Your task to perform on an android device: Open Chrome and go to the settings page Image 0: 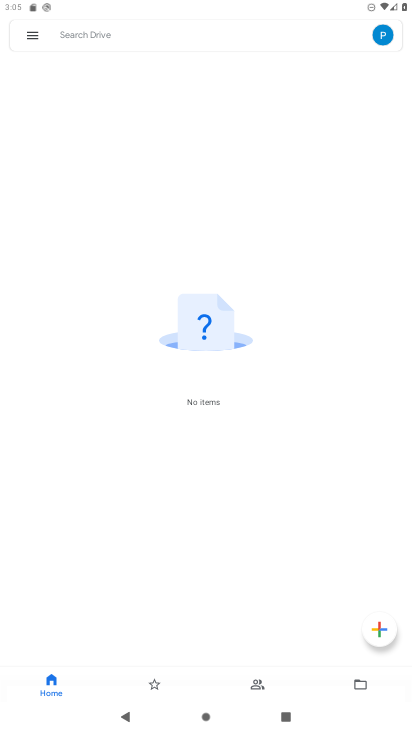
Step 0: press home button
Your task to perform on an android device: Open Chrome and go to the settings page Image 1: 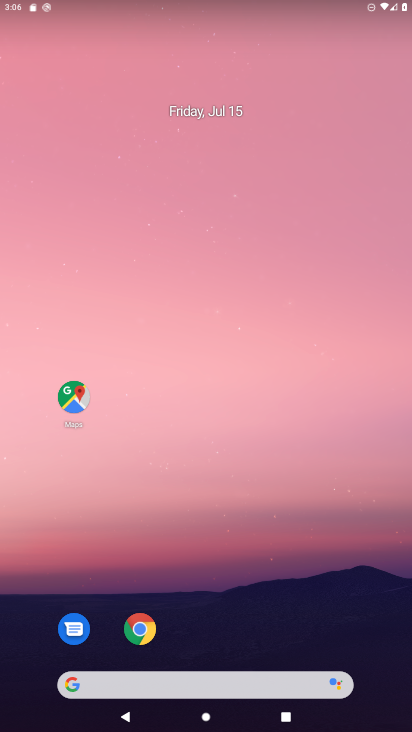
Step 1: drag from (255, 508) to (253, 14)
Your task to perform on an android device: Open Chrome and go to the settings page Image 2: 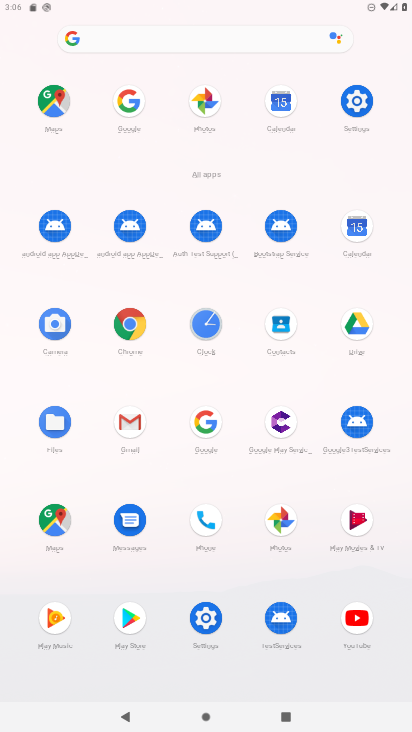
Step 2: click (137, 320)
Your task to perform on an android device: Open Chrome and go to the settings page Image 3: 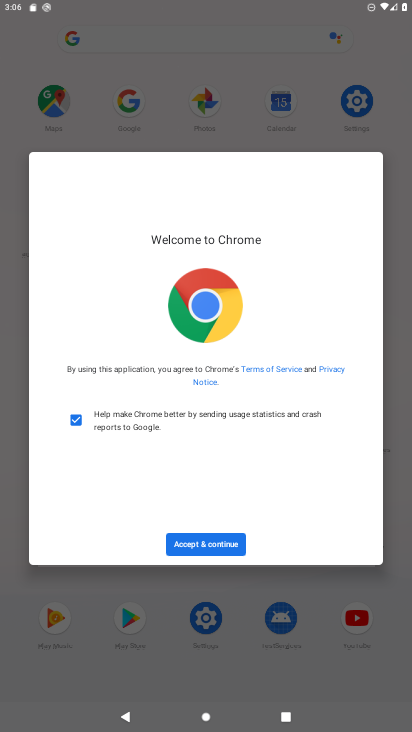
Step 3: click (223, 543)
Your task to perform on an android device: Open Chrome and go to the settings page Image 4: 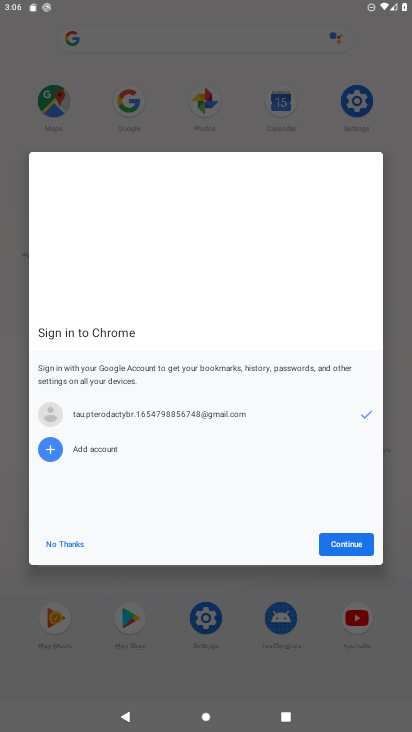
Step 4: click (71, 536)
Your task to perform on an android device: Open Chrome and go to the settings page Image 5: 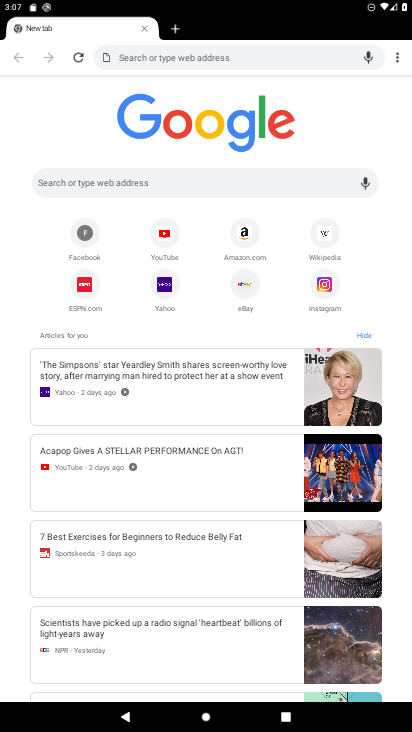
Step 5: task complete